Your task to perform on an android device: Clear the shopping cart on ebay.com. Search for logitech g pro on ebay.com, select the first entry, add it to the cart, then select checkout. Image 0: 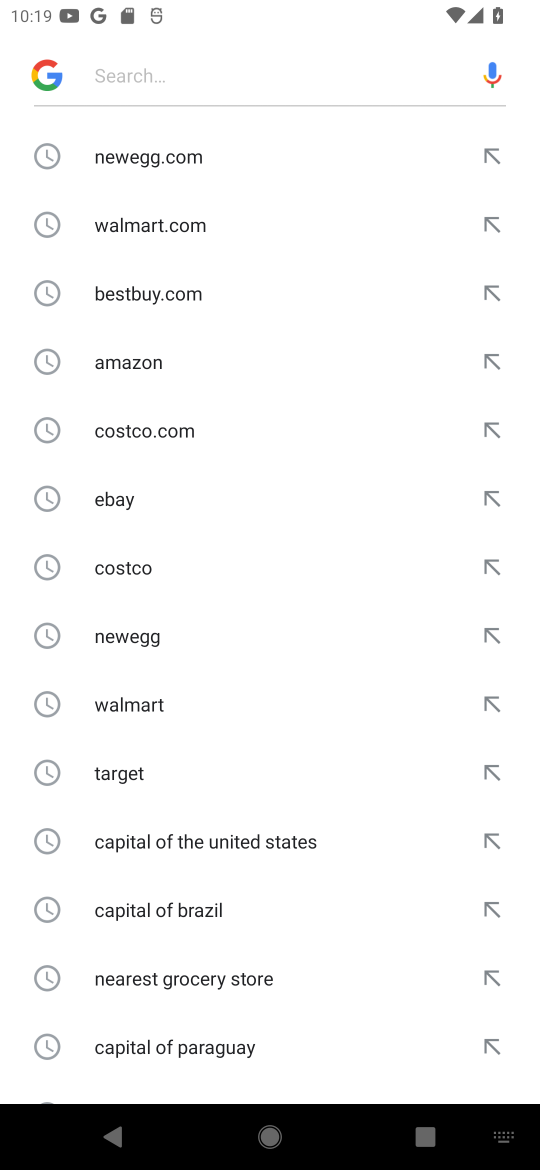
Step 0: press home button
Your task to perform on an android device: Clear the shopping cart on ebay.com. Search for logitech g pro on ebay.com, select the first entry, add it to the cart, then select checkout. Image 1: 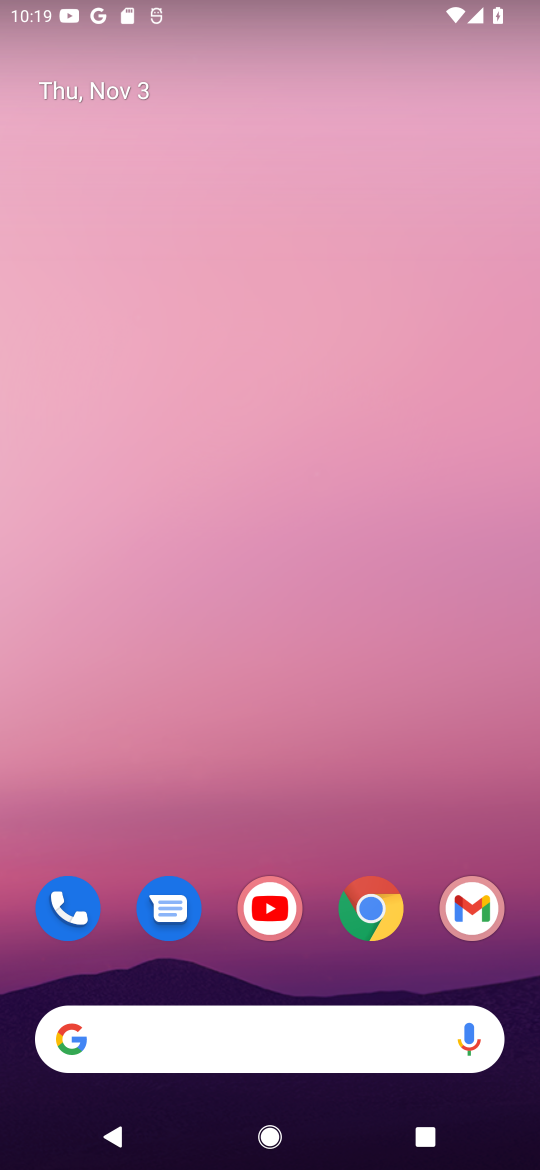
Step 1: click (378, 912)
Your task to perform on an android device: Clear the shopping cart on ebay.com. Search for logitech g pro on ebay.com, select the first entry, add it to the cart, then select checkout. Image 2: 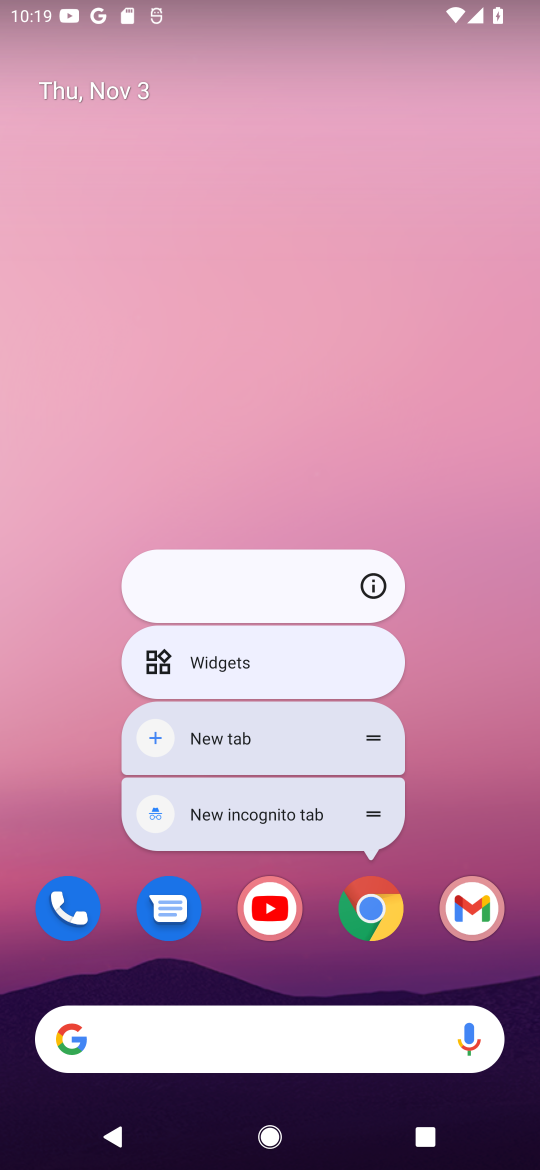
Step 2: click (380, 912)
Your task to perform on an android device: Clear the shopping cart on ebay.com. Search for logitech g pro on ebay.com, select the first entry, add it to the cart, then select checkout. Image 3: 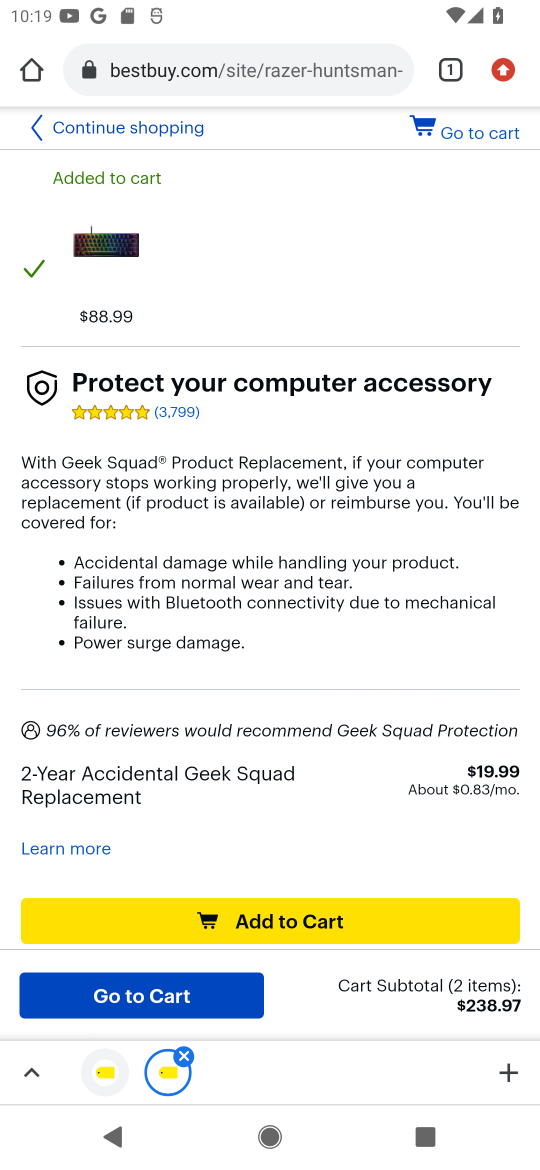
Step 3: click (251, 83)
Your task to perform on an android device: Clear the shopping cart on ebay.com. Search for logitech g pro on ebay.com, select the first entry, add it to the cart, then select checkout. Image 4: 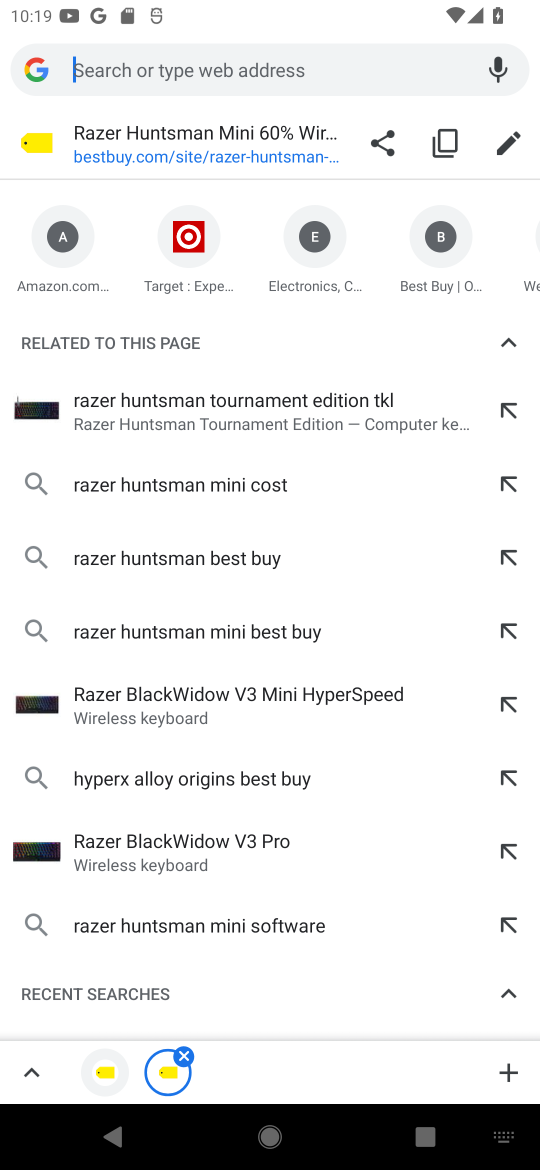
Step 4: type "ebay.com"
Your task to perform on an android device: Clear the shopping cart on ebay.com. Search for logitech g pro on ebay.com, select the first entry, add it to the cart, then select checkout. Image 5: 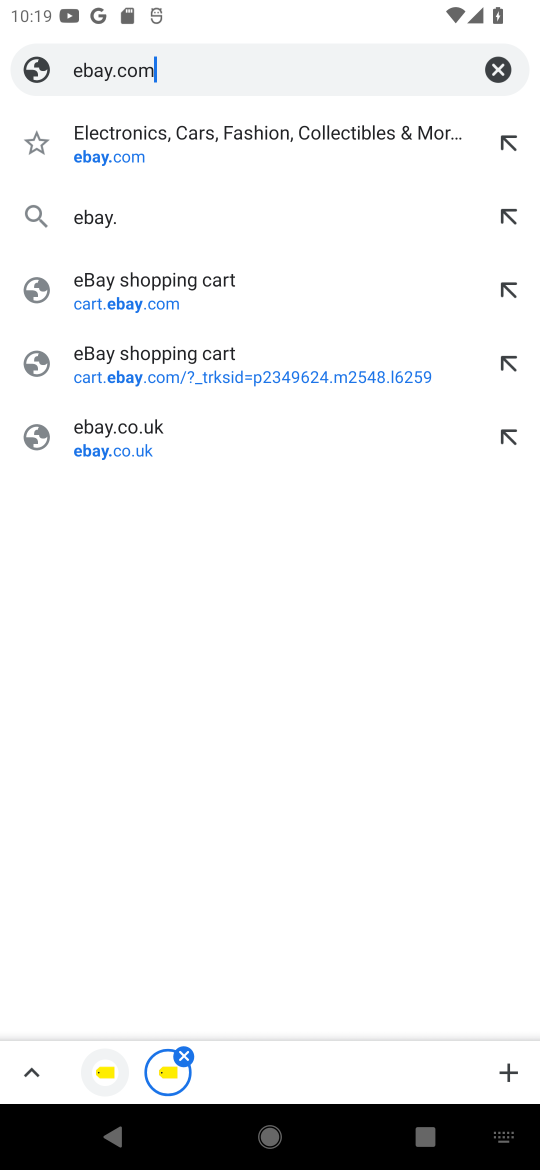
Step 5: press enter
Your task to perform on an android device: Clear the shopping cart on ebay.com. Search for logitech g pro on ebay.com, select the first entry, add it to the cart, then select checkout. Image 6: 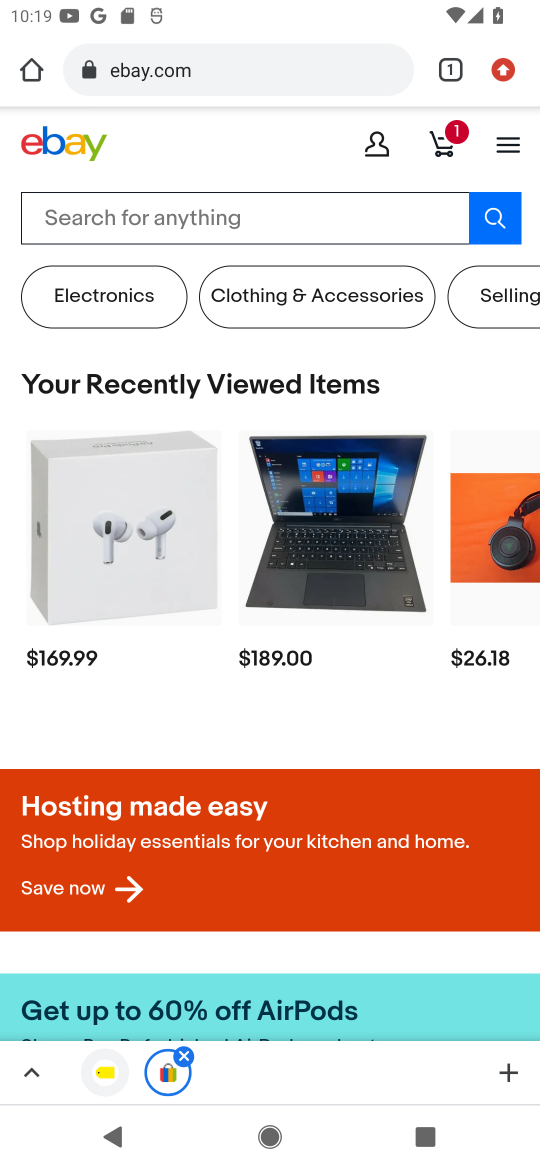
Step 6: click (445, 150)
Your task to perform on an android device: Clear the shopping cart on ebay.com. Search for logitech g pro on ebay.com, select the first entry, add it to the cart, then select checkout. Image 7: 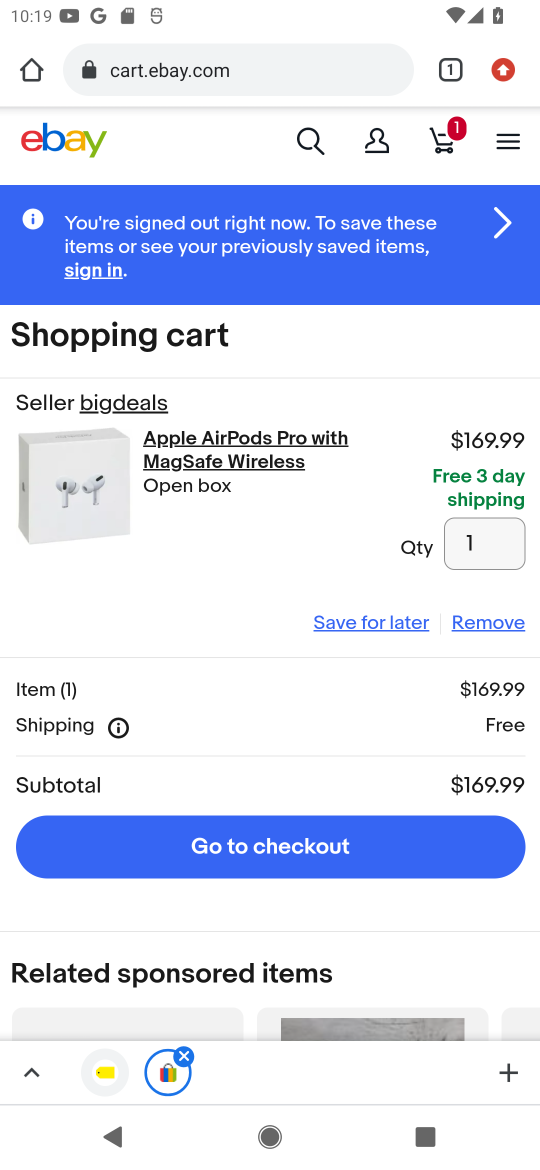
Step 7: click (476, 625)
Your task to perform on an android device: Clear the shopping cart on ebay.com. Search for logitech g pro on ebay.com, select the first entry, add it to the cart, then select checkout. Image 8: 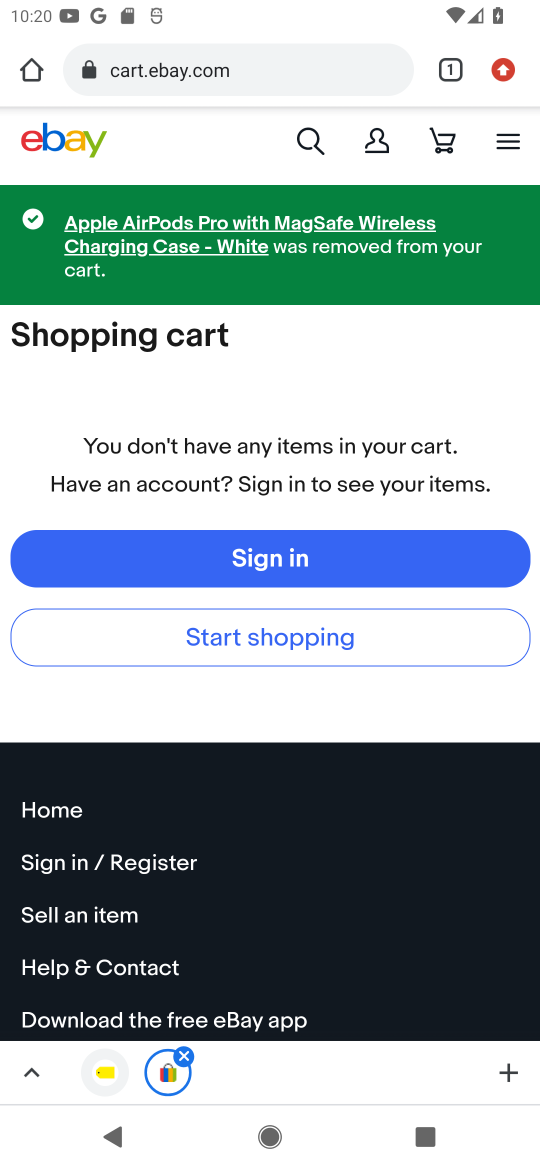
Step 8: click (303, 138)
Your task to perform on an android device: Clear the shopping cart on ebay.com. Search for logitech g pro on ebay.com, select the first entry, add it to the cart, then select checkout. Image 9: 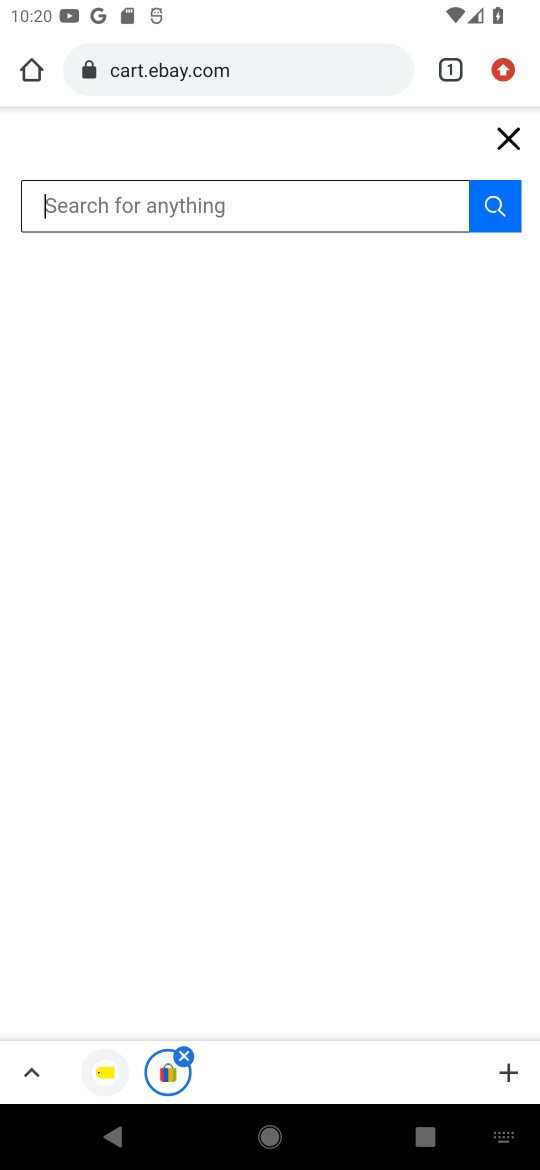
Step 9: type " logitech g pro"
Your task to perform on an android device: Clear the shopping cart on ebay.com. Search for logitech g pro on ebay.com, select the first entry, add it to the cart, then select checkout. Image 10: 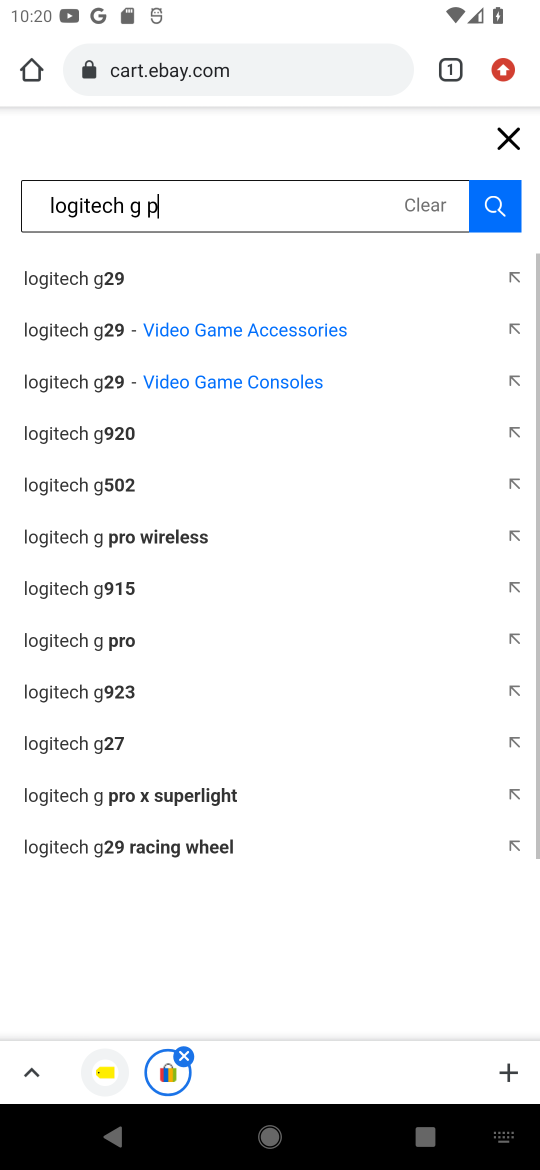
Step 10: press enter
Your task to perform on an android device: Clear the shopping cart on ebay.com. Search for logitech g pro on ebay.com, select the first entry, add it to the cart, then select checkout. Image 11: 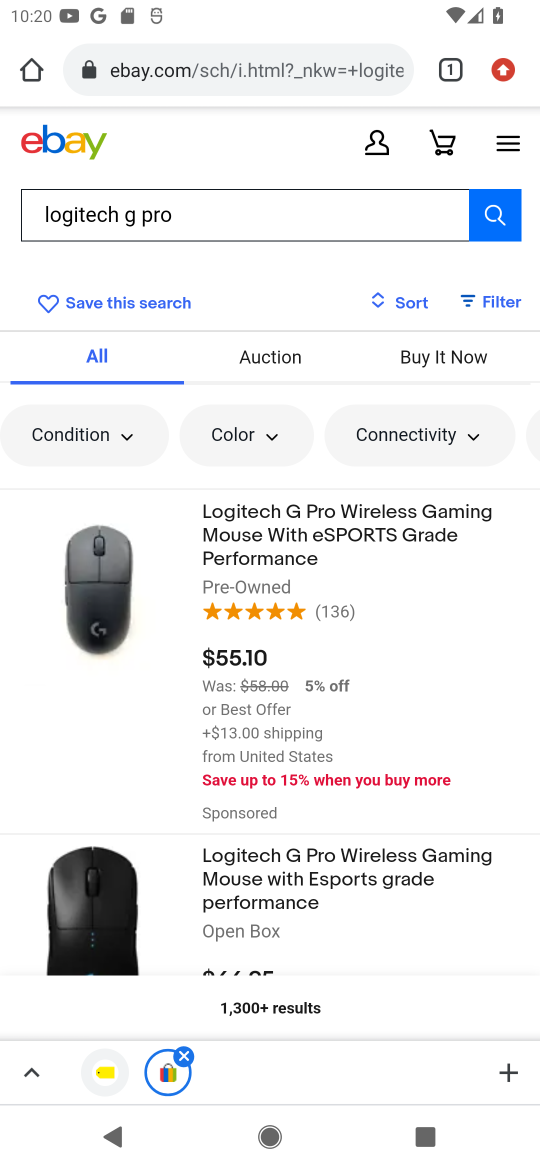
Step 11: click (374, 528)
Your task to perform on an android device: Clear the shopping cart on ebay.com. Search for logitech g pro on ebay.com, select the first entry, add it to the cart, then select checkout. Image 12: 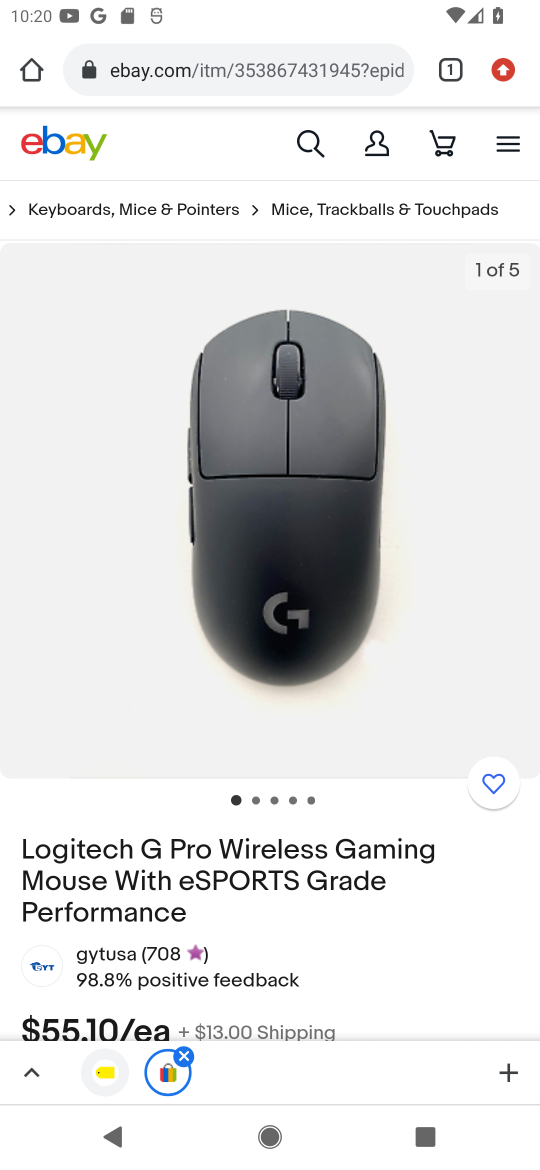
Step 12: drag from (435, 913) to (451, 446)
Your task to perform on an android device: Clear the shopping cart on ebay.com. Search for logitech g pro on ebay.com, select the first entry, add it to the cart, then select checkout. Image 13: 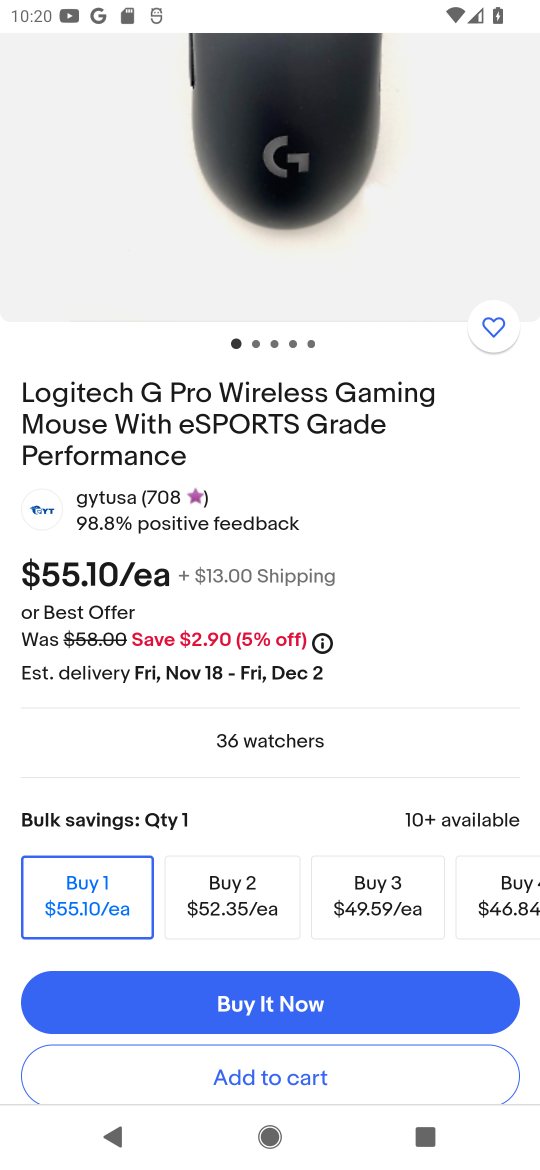
Step 13: drag from (361, 772) to (429, 430)
Your task to perform on an android device: Clear the shopping cart on ebay.com. Search for logitech g pro on ebay.com, select the first entry, add it to the cart, then select checkout. Image 14: 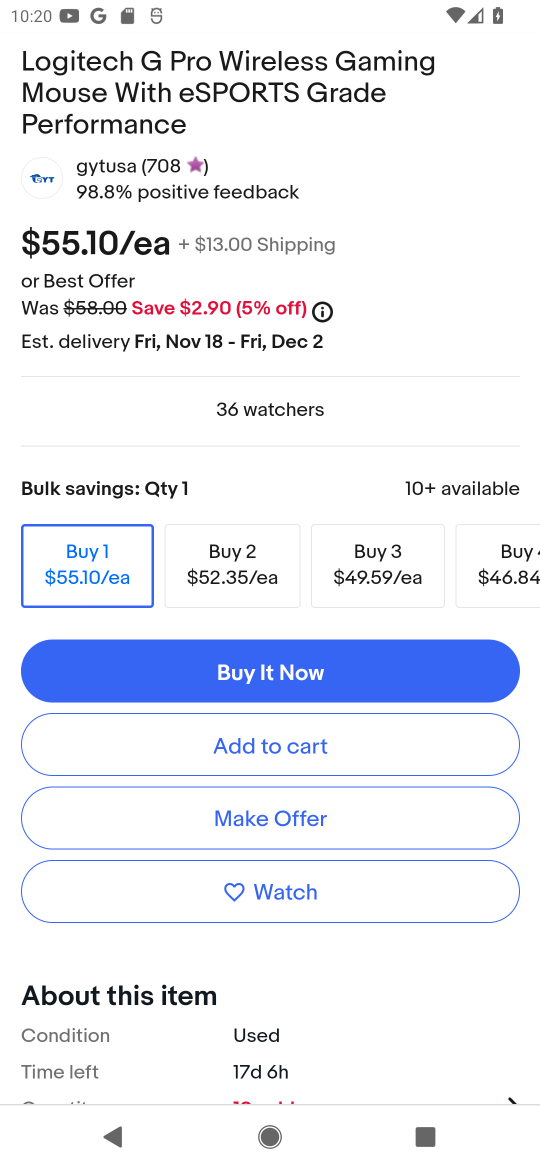
Step 14: click (329, 743)
Your task to perform on an android device: Clear the shopping cart on ebay.com. Search for logitech g pro on ebay.com, select the first entry, add it to the cart, then select checkout. Image 15: 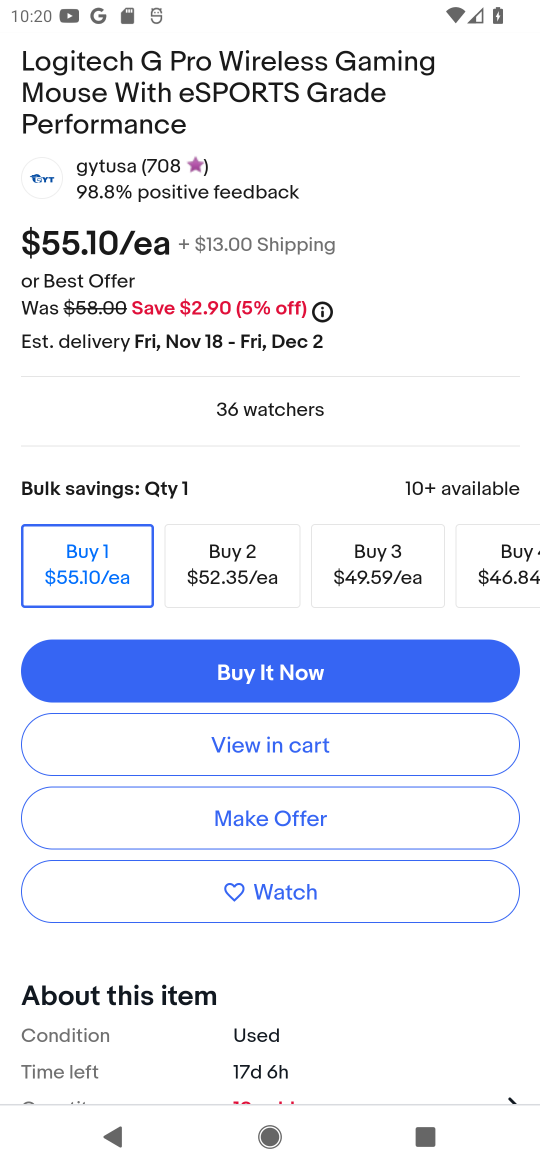
Step 15: click (306, 745)
Your task to perform on an android device: Clear the shopping cart on ebay.com. Search for logitech g pro on ebay.com, select the first entry, add it to the cart, then select checkout. Image 16: 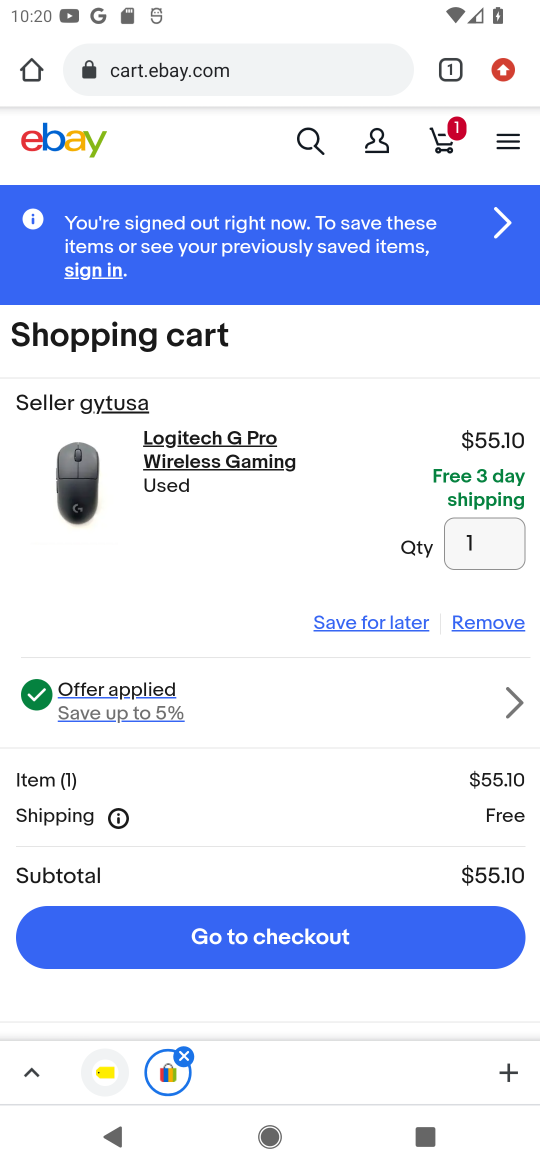
Step 16: click (295, 935)
Your task to perform on an android device: Clear the shopping cart on ebay.com. Search for logitech g pro on ebay.com, select the first entry, add it to the cart, then select checkout. Image 17: 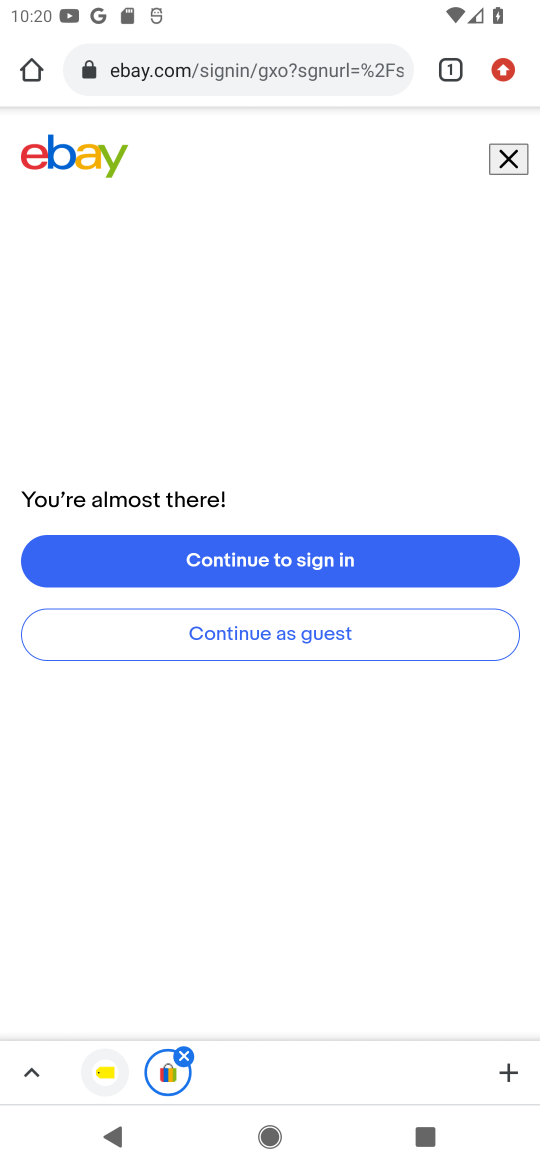
Step 17: task complete